Your task to perform on an android device: Show the shopping cart on amazon.com. Search for "razer huntsman" on amazon.com, select the first entry, add it to the cart, then select checkout. Image 0: 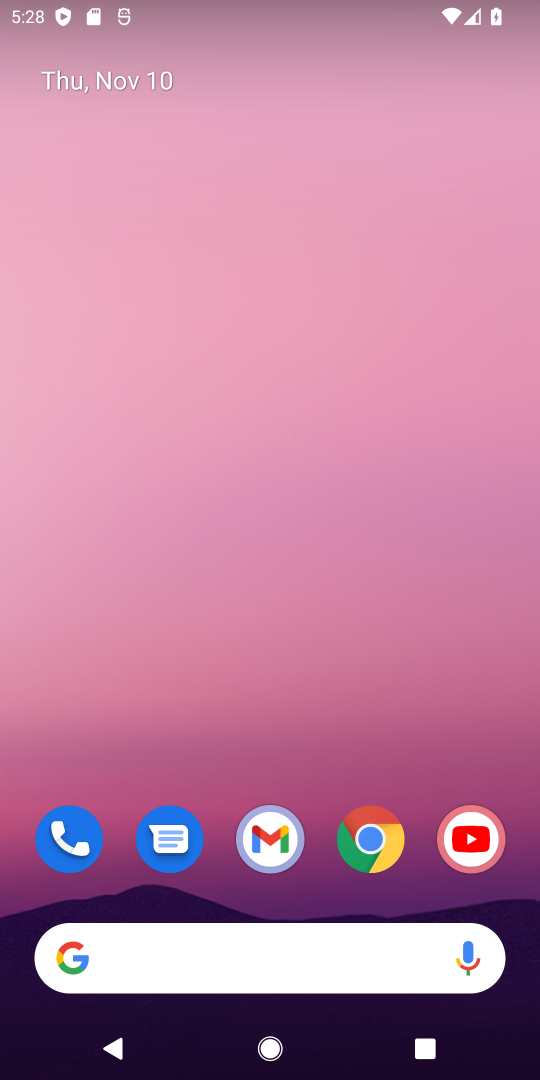
Step 0: click (379, 833)
Your task to perform on an android device: Show the shopping cart on amazon.com. Search for "razer huntsman" on amazon.com, select the first entry, add it to the cart, then select checkout. Image 1: 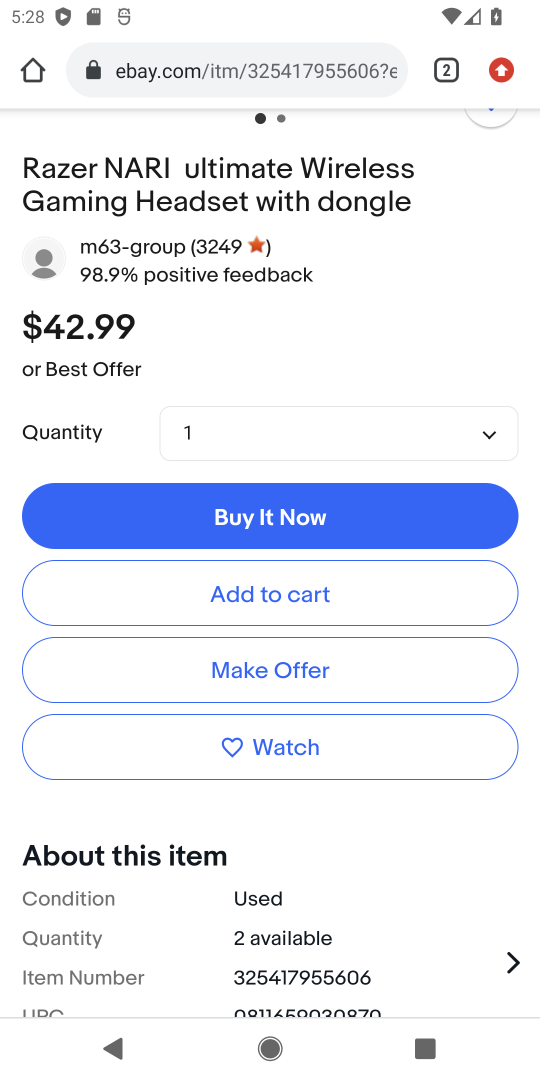
Step 1: click (445, 76)
Your task to perform on an android device: Show the shopping cart on amazon.com. Search for "razer huntsman" on amazon.com, select the first entry, add it to the cart, then select checkout. Image 2: 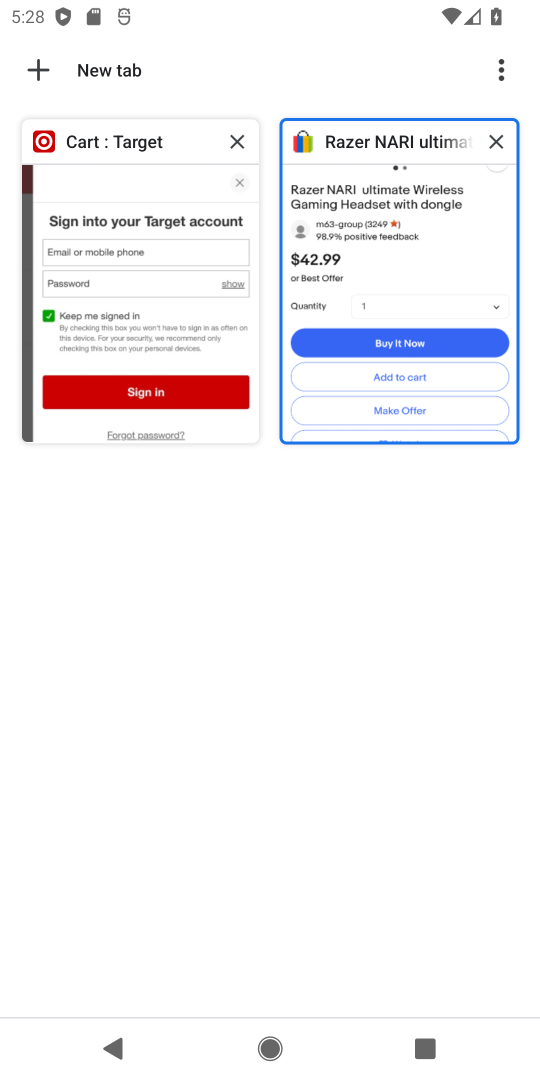
Step 2: click (42, 74)
Your task to perform on an android device: Show the shopping cart on amazon.com. Search for "razer huntsman" on amazon.com, select the first entry, add it to the cart, then select checkout. Image 3: 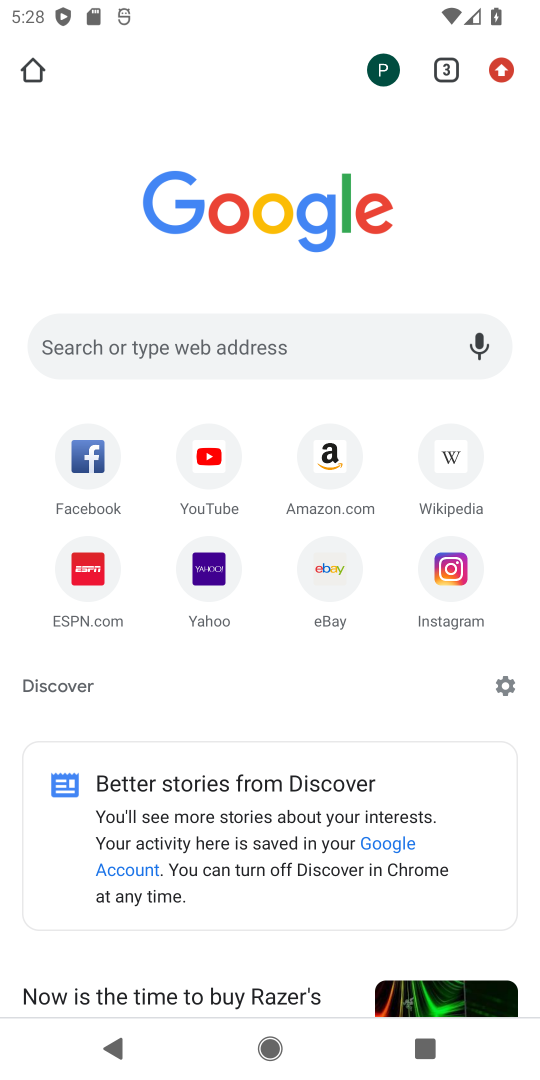
Step 3: click (322, 452)
Your task to perform on an android device: Show the shopping cart on amazon.com. Search for "razer huntsman" on amazon.com, select the first entry, add it to the cart, then select checkout. Image 4: 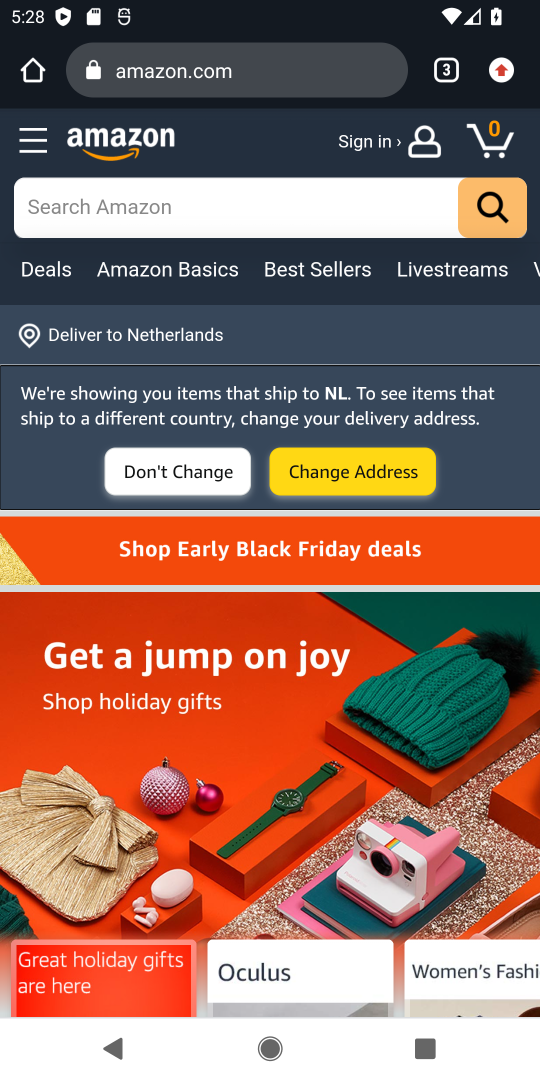
Step 4: click (112, 205)
Your task to perform on an android device: Show the shopping cart on amazon.com. Search for "razer huntsman" on amazon.com, select the first entry, add it to the cart, then select checkout. Image 5: 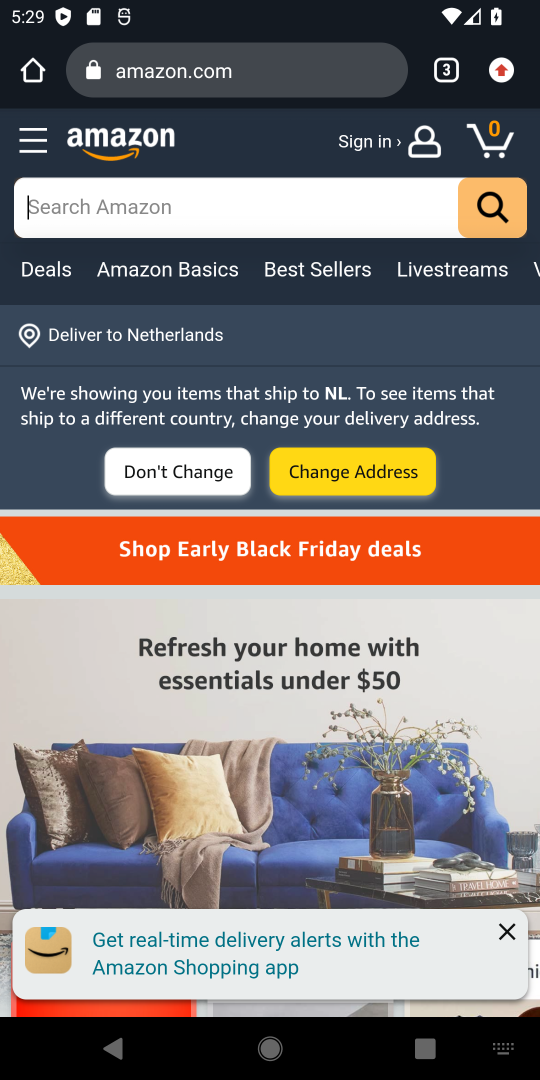
Step 5: type "razer huntsman"
Your task to perform on an android device: Show the shopping cart on amazon.com. Search for "razer huntsman" on amazon.com, select the first entry, add it to the cart, then select checkout. Image 6: 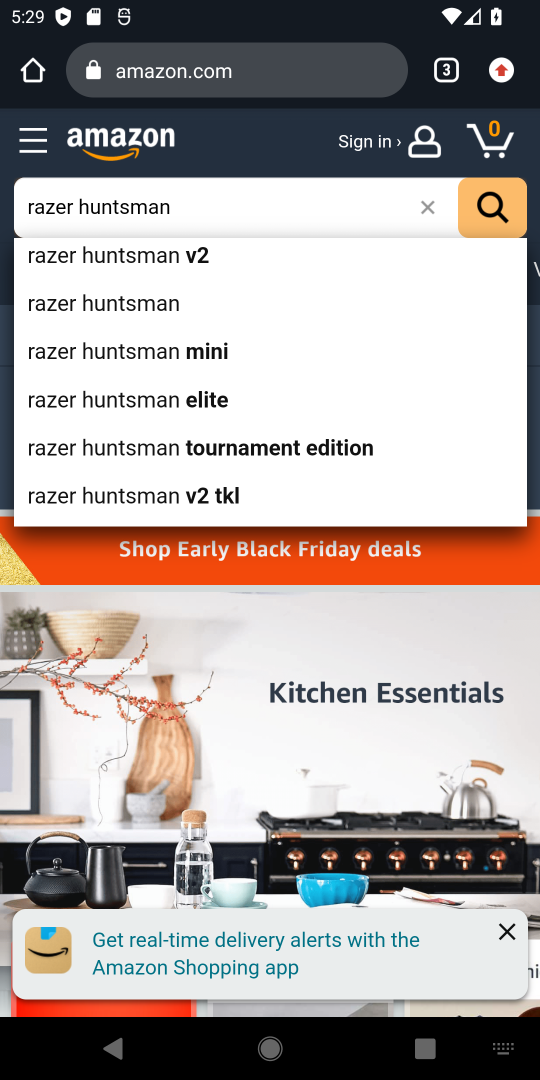
Step 6: click (141, 300)
Your task to perform on an android device: Show the shopping cart on amazon.com. Search for "razer huntsman" on amazon.com, select the first entry, add it to the cart, then select checkout. Image 7: 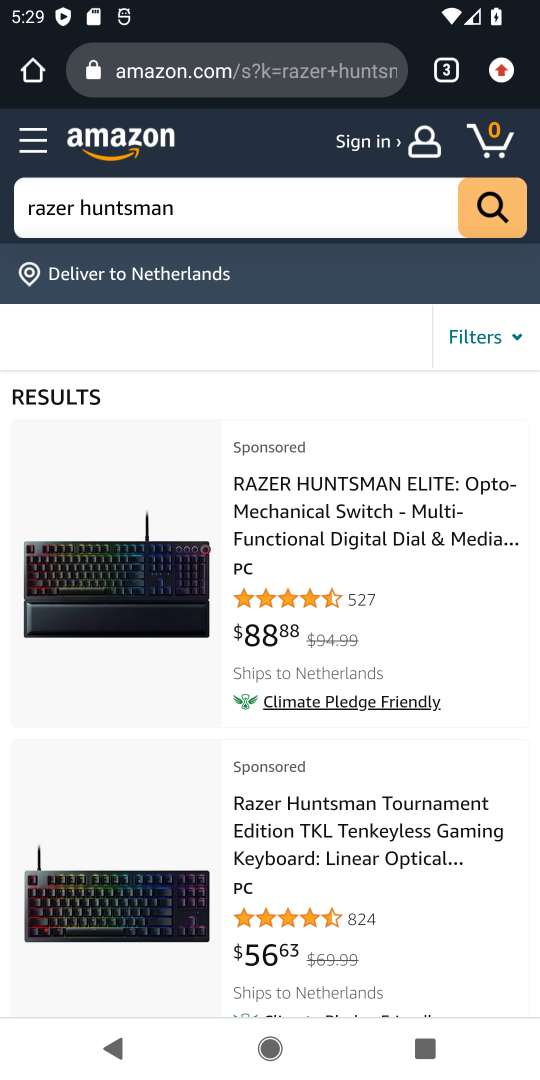
Step 7: click (362, 495)
Your task to perform on an android device: Show the shopping cart on amazon.com. Search for "razer huntsman" on amazon.com, select the first entry, add it to the cart, then select checkout. Image 8: 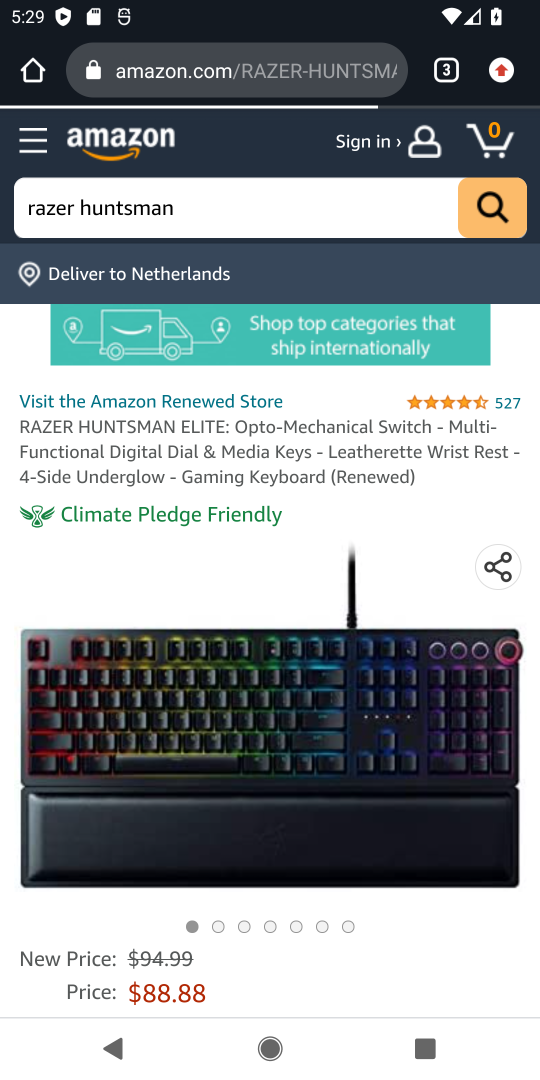
Step 8: drag from (380, 965) to (460, 510)
Your task to perform on an android device: Show the shopping cart on amazon.com. Search for "razer huntsman" on amazon.com, select the first entry, add it to the cart, then select checkout. Image 9: 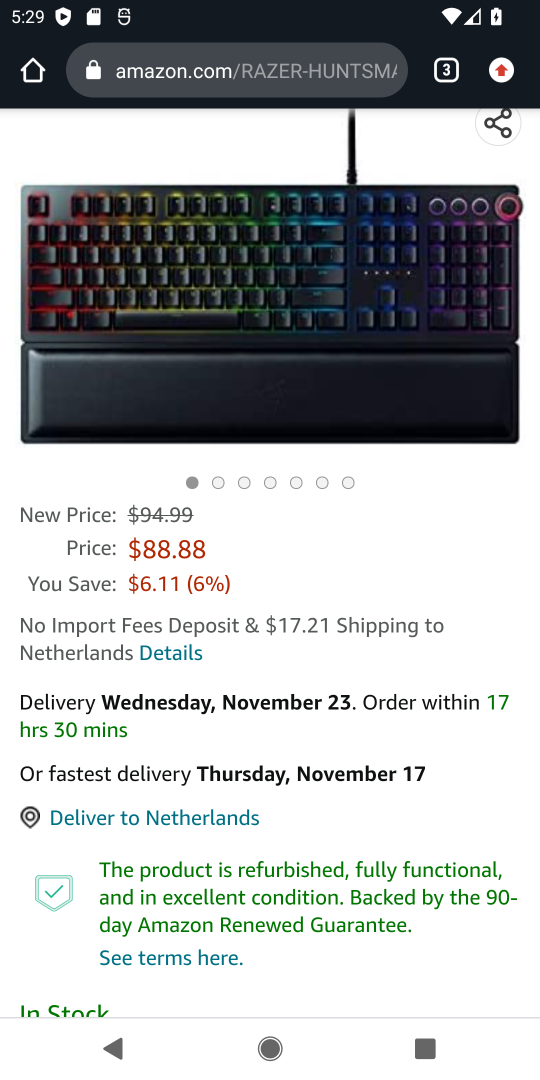
Step 9: drag from (327, 832) to (375, 455)
Your task to perform on an android device: Show the shopping cart on amazon.com. Search for "razer huntsman" on amazon.com, select the first entry, add it to the cart, then select checkout. Image 10: 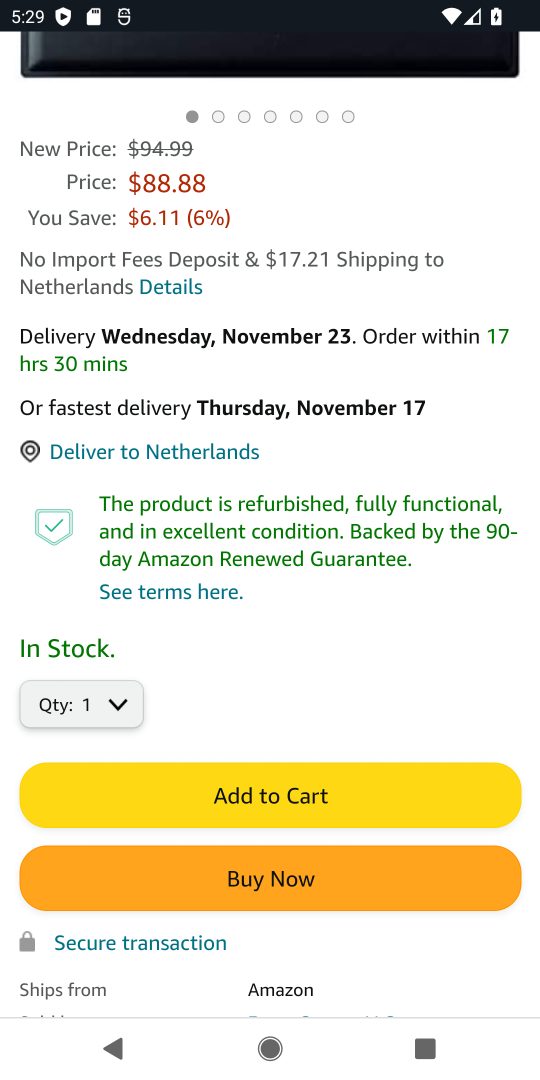
Step 10: click (309, 798)
Your task to perform on an android device: Show the shopping cart on amazon.com. Search for "razer huntsman" on amazon.com, select the first entry, add it to the cart, then select checkout. Image 11: 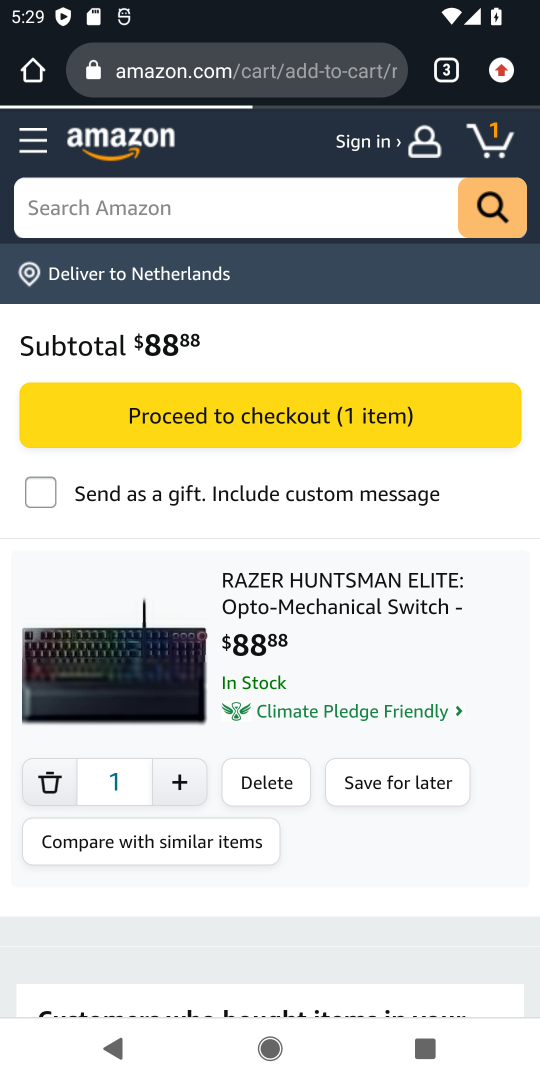
Step 11: task complete